Your task to perform on an android device: Search for logitech g502 on amazon.com, select the first entry, add it to the cart, then select checkout. Image 0: 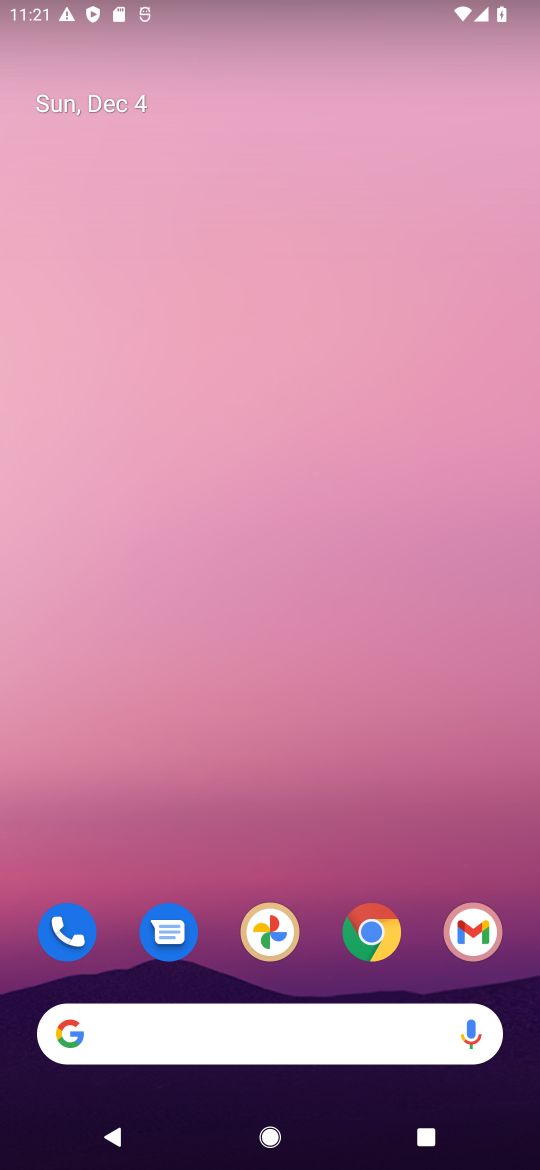
Step 0: click (372, 935)
Your task to perform on an android device: Search for logitech g502 on amazon.com, select the first entry, add it to the cart, then select checkout. Image 1: 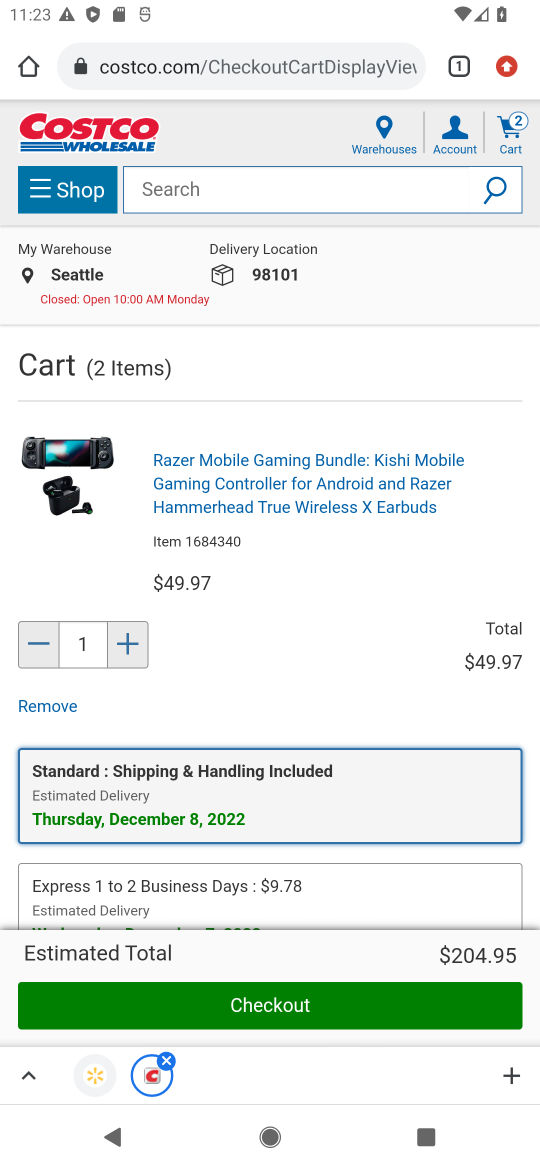
Step 1: task complete